Your task to perform on an android device: turn off wifi Image 0: 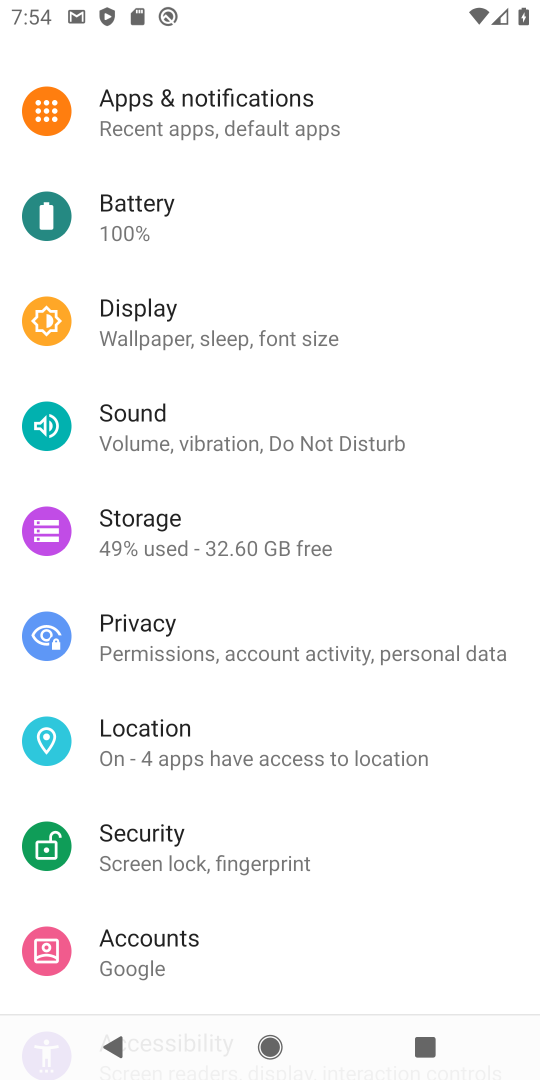
Step 0: drag from (226, 227) to (226, 716)
Your task to perform on an android device: turn off wifi Image 1: 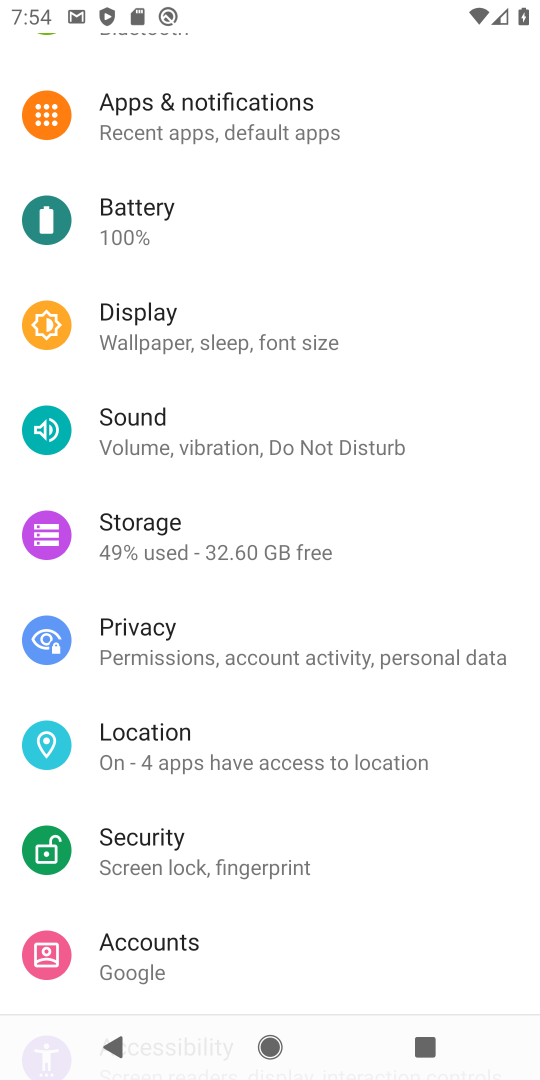
Step 1: drag from (209, 159) to (253, 723)
Your task to perform on an android device: turn off wifi Image 2: 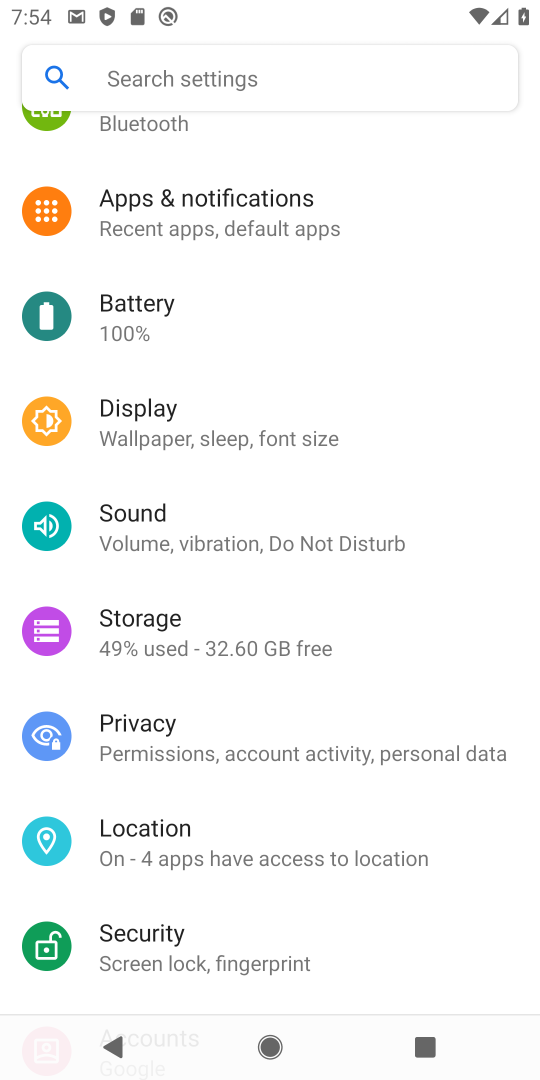
Step 2: drag from (169, 193) to (186, 720)
Your task to perform on an android device: turn off wifi Image 3: 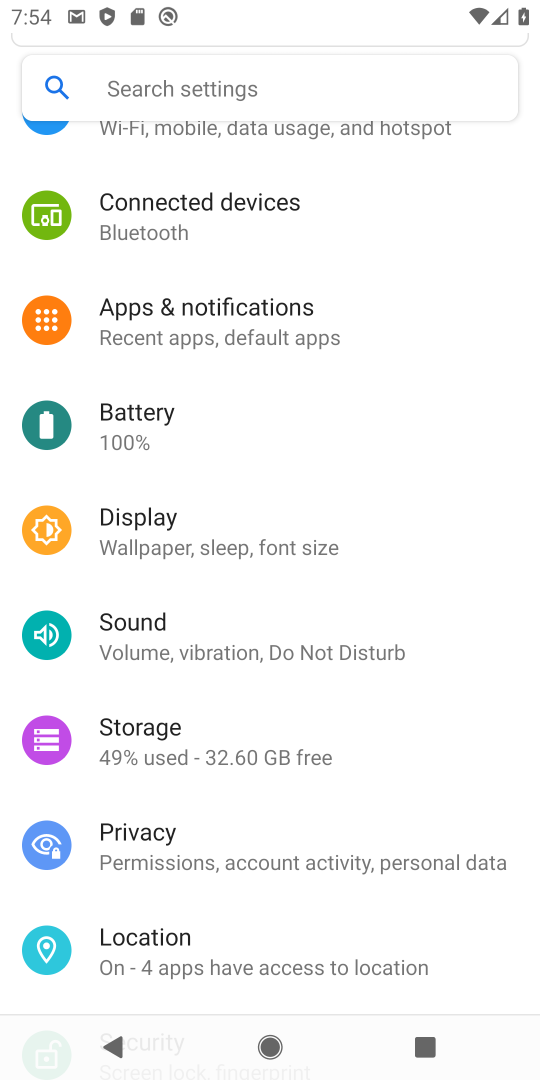
Step 3: click (161, 126)
Your task to perform on an android device: turn off wifi Image 4: 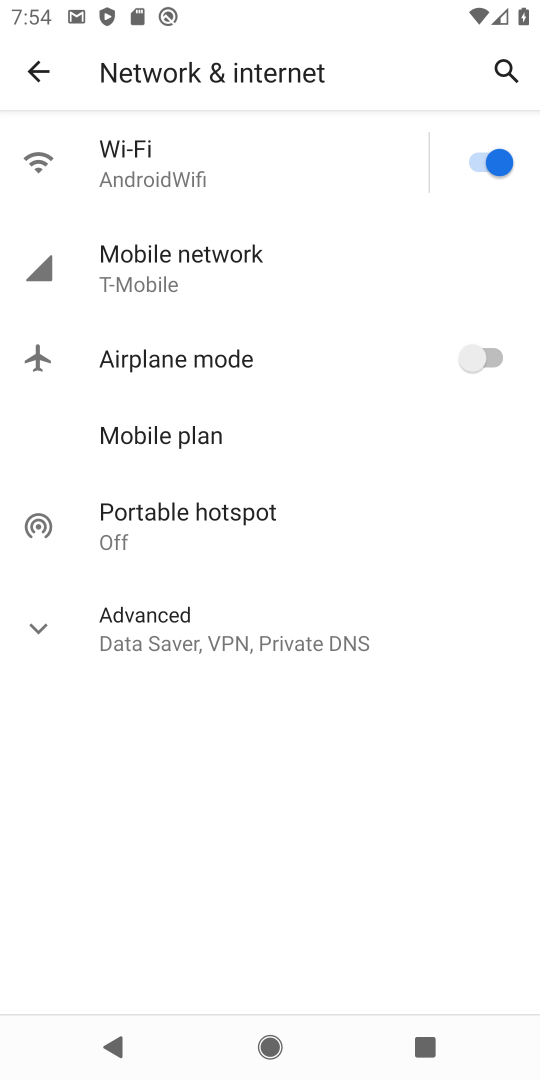
Step 4: click (484, 154)
Your task to perform on an android device: turn off wifi Image 5: 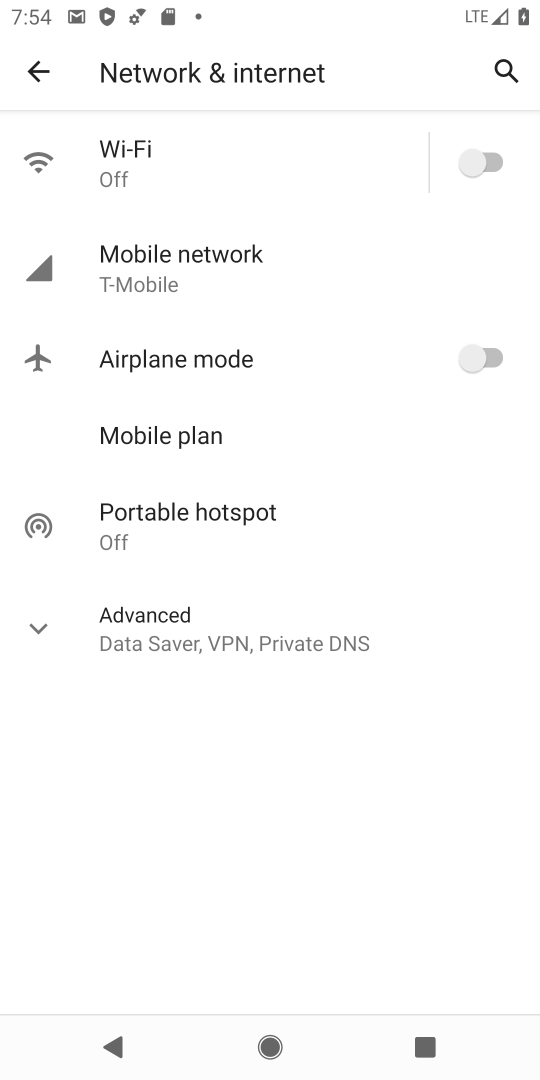
Step 5: task complete